Your task to perform on an android device: change the clock style Image 0: 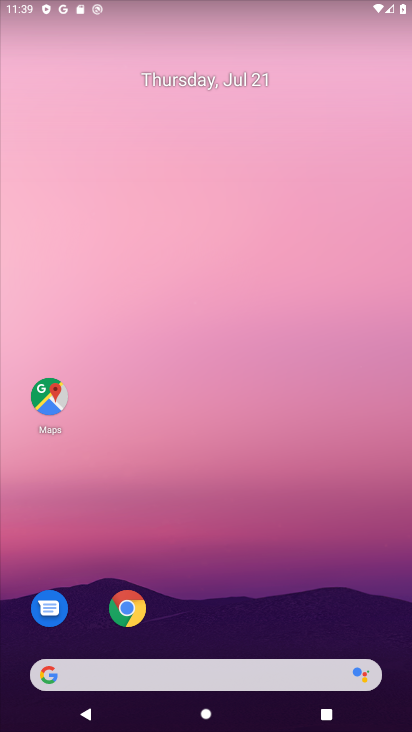
Step 0: drag from (215, 628) to (245, 328)
Your task to perform on an android device: change the clock style Image 1: 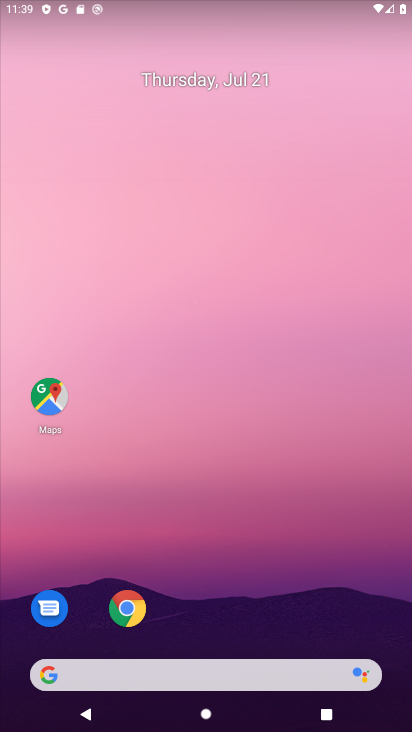
Step 1: drag from (227, 601) to (225, 159)
Your task to perform on an android device: change the clock style Image 2: 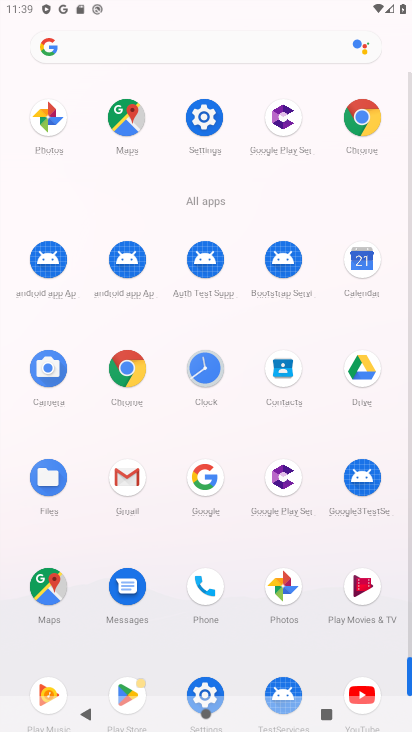
Step 2: drag from (238, 510) to (279, 1)
Your task to perform on an android device: change the clock style Image 3: 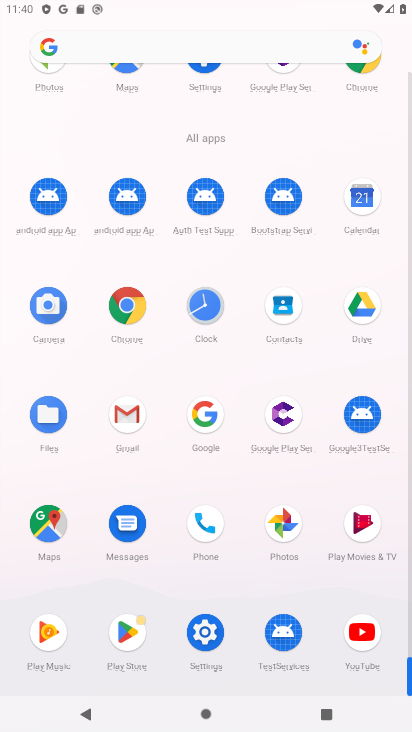
Step 3: click (202, 303)
Your task to perform on an android device: change the clock style Image 4: 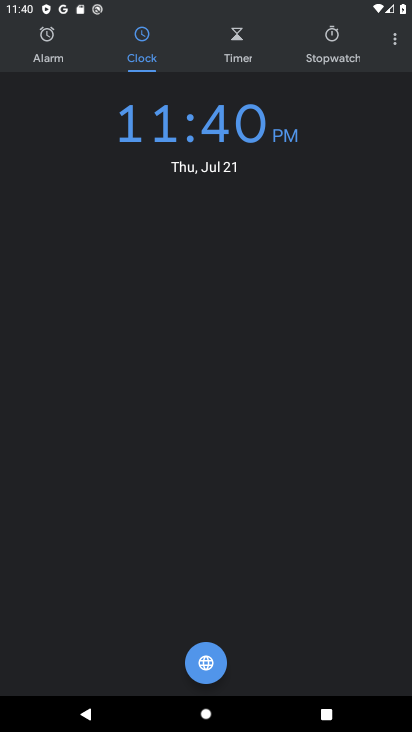
Step 4: click (391, 45)
Your task to perform on an android device: change the clock style Image 5: 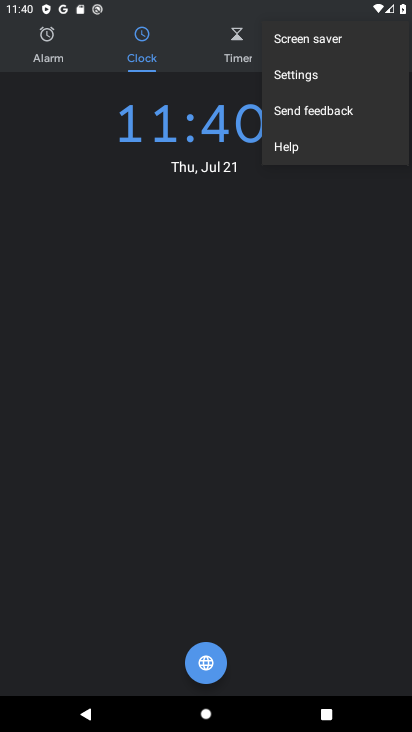
Step 5: click (316, 78)
Your task to perform on an android device: change the clock style Image 6: 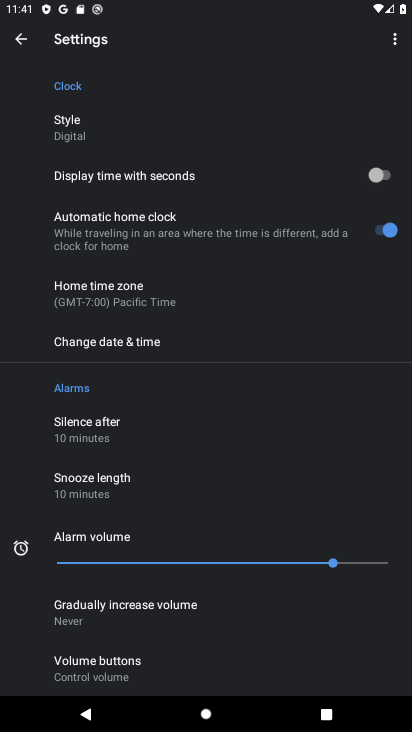
Step 6: click (115, 133)
Your task to perform on an android device: change the clock style Image 7: 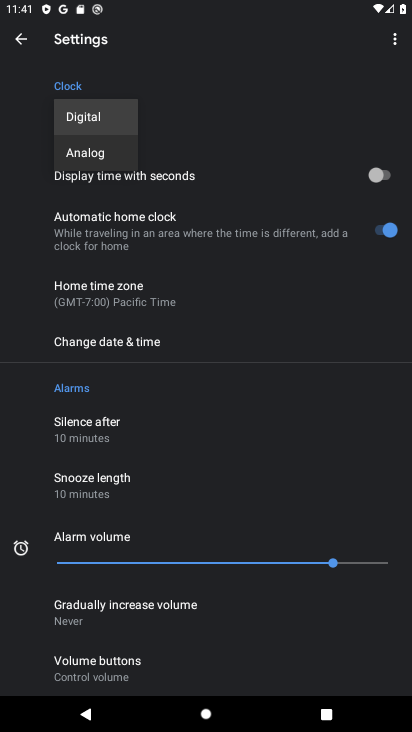
Step 7: click (114, 153)
Your task to perform on an android device: change the clock style Image 8: 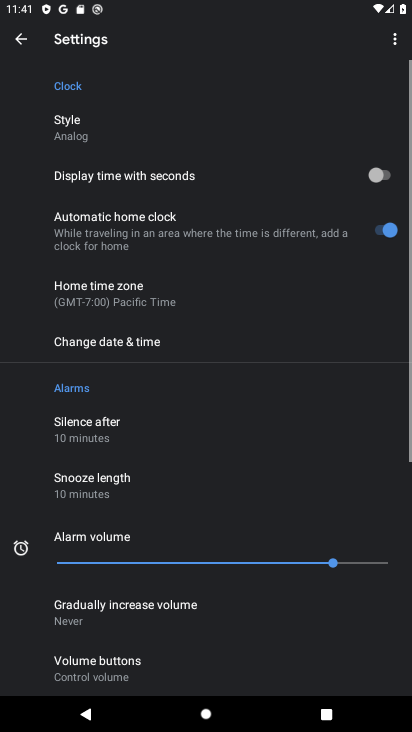
Step 8: task complete